Your task to perform on an android device: change the clock style Image 0: 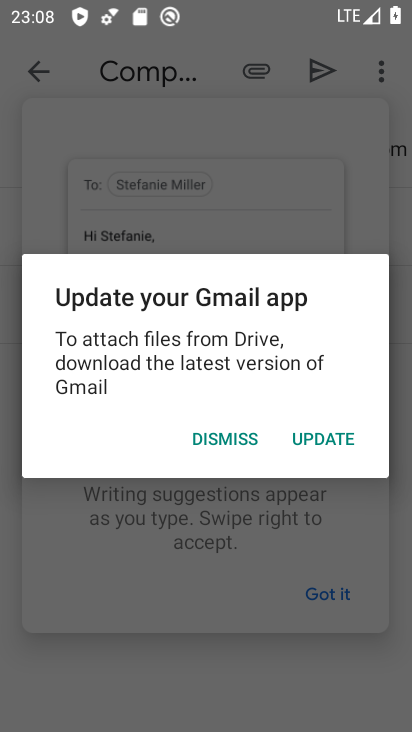
Step 0: press home button
Your task to perform on an android device: change the clock style Image 1: 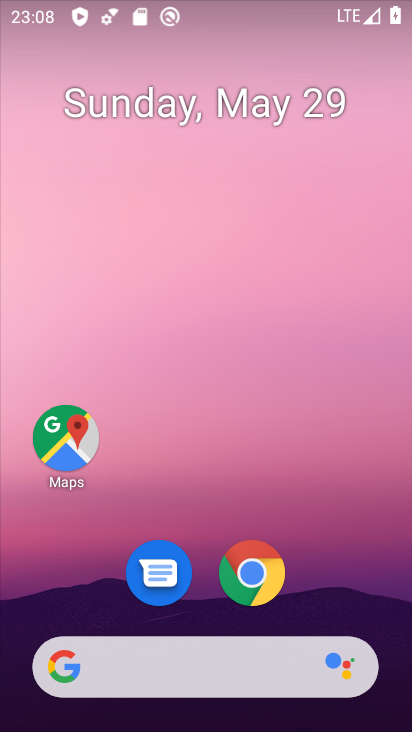
Step 1: drag from (344, 386) to (254, 1)
Your task to perform on an android device: change the clock style Image 2: 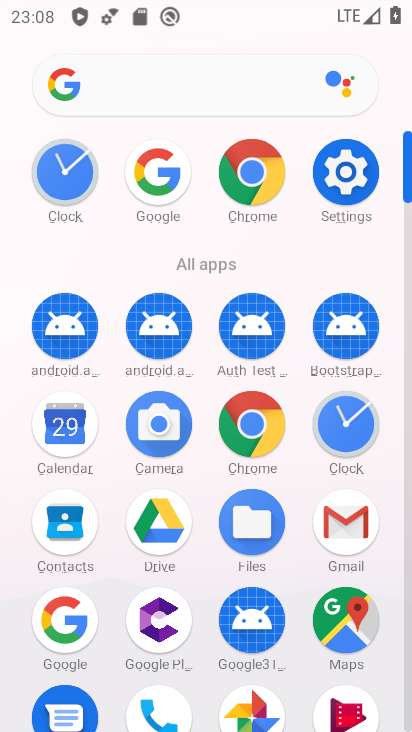
Step 2: click (348, 438)
Your task to perform on an android device: change the clock style Image 3: 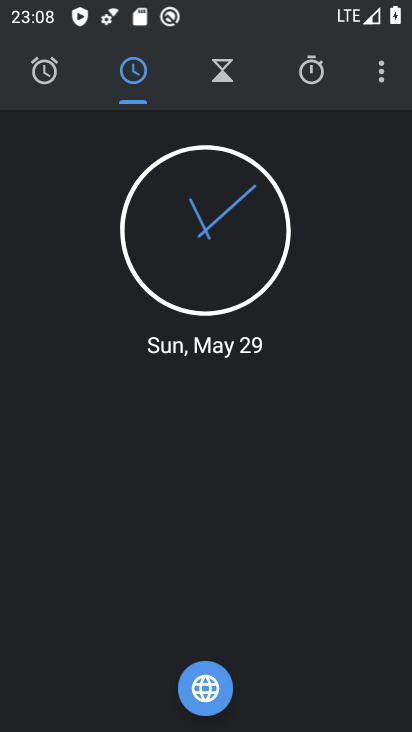
Step 3: click (390, 78)
Your task to perform on an android device: change the clock style Image 4: 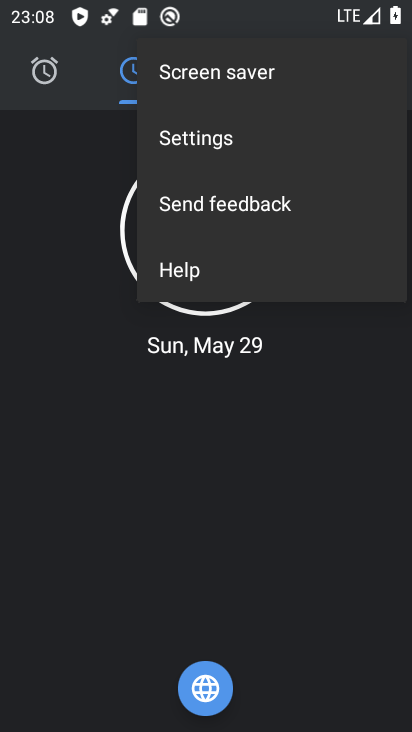
Step 4: click (226, 132)
Your task to perform on an android device: change the clock style Image 5: 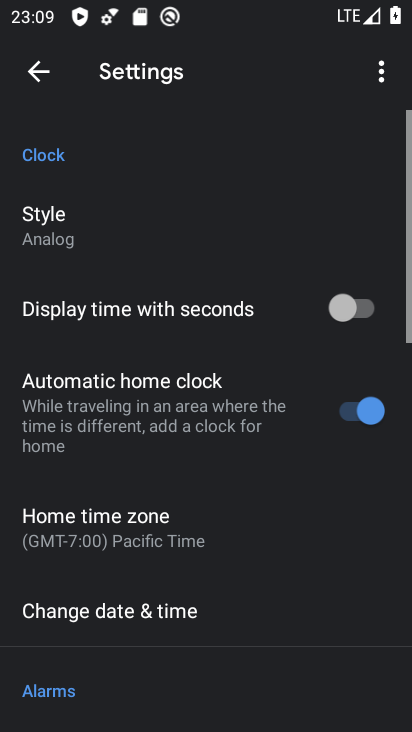
Step 5: click (211, 232)
Your task to perform on an android device: change the clock style Image 6: 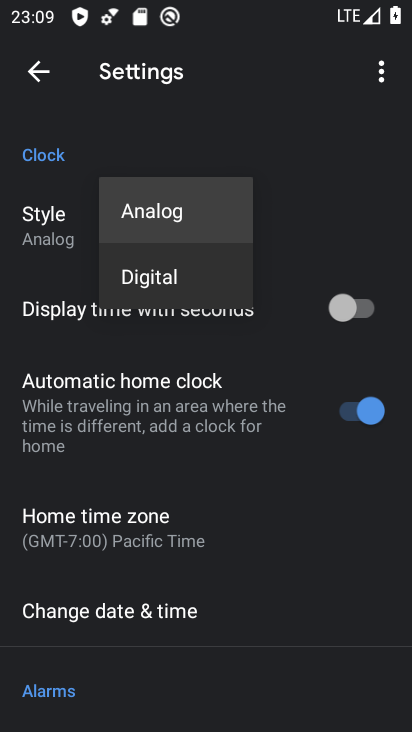
Step 6: click (165, 283)
Your task to perform on an android device: change the clock style Image 7: 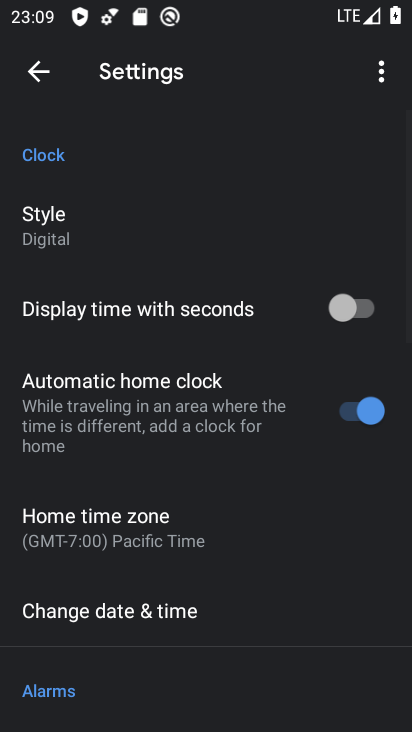
Step 7: task complete